Your task to perform on an android device: Open calendar and show me the third week of next month Image 0: 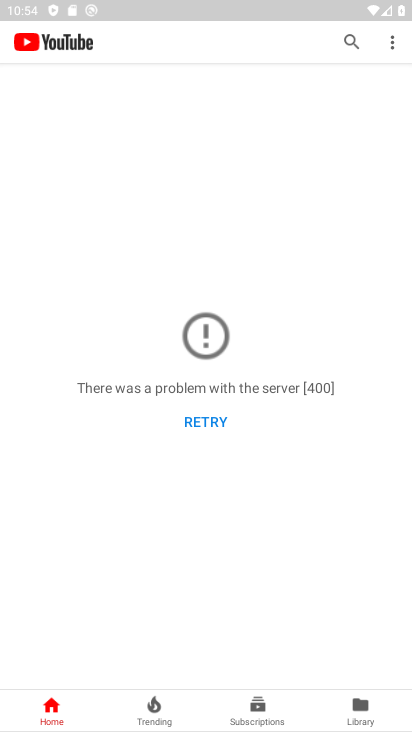
Step 0: press home button
Your task to perform on an android device: Open calendar and show me the third week of next month Image 1: 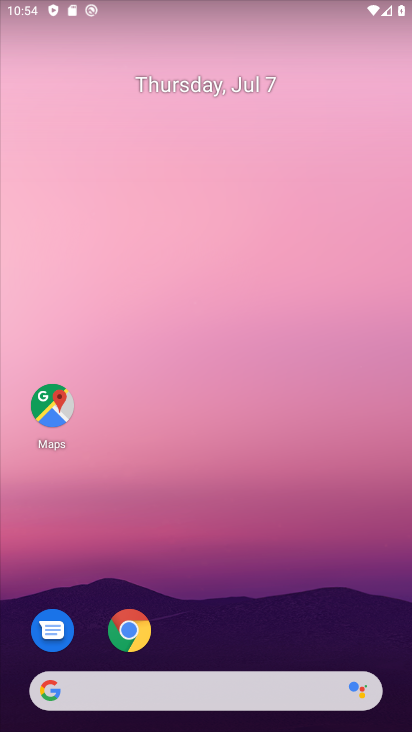
Step 1: drag from (395, 667) to (316, 68)
Your task to perform on an android device: Open calendar and show me the third week of next month Image 2: 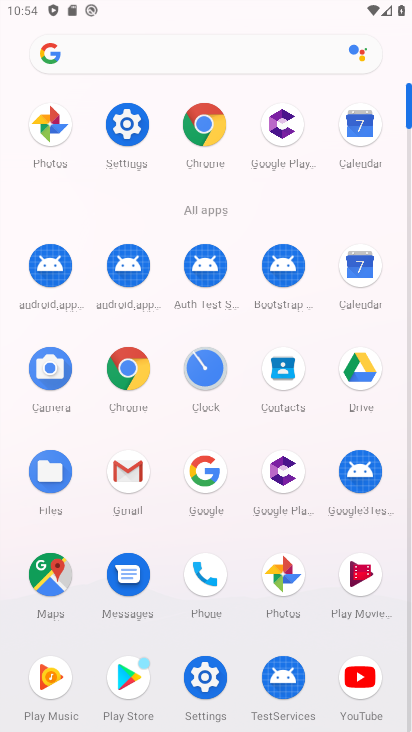
Step 2: click (360, 264)
Your task to perform on an android device: Open calendar and show me the third week of next month Image 3: 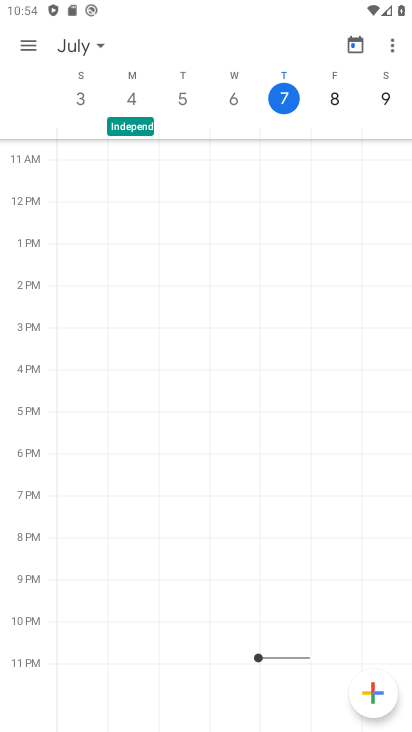
Step 3: click (93, 46)
Your task to perform on an android device: Open calendar and show me the third week of next month Image 4: 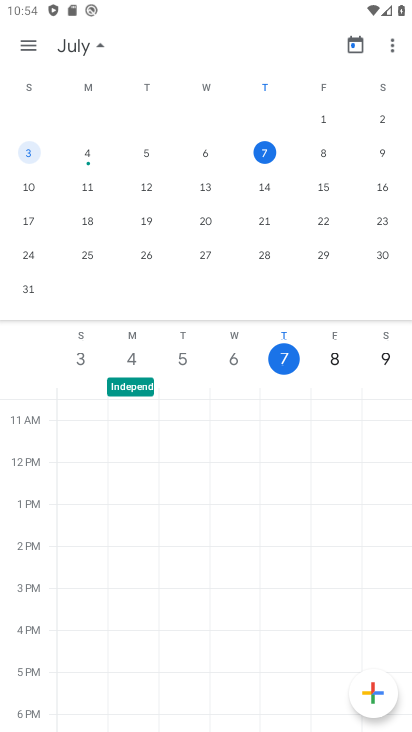
Step 4: drag from (369, 245) to (112, 245)
Your task to perform on an android device: Open calendar and show me the third week of next month Image 5: 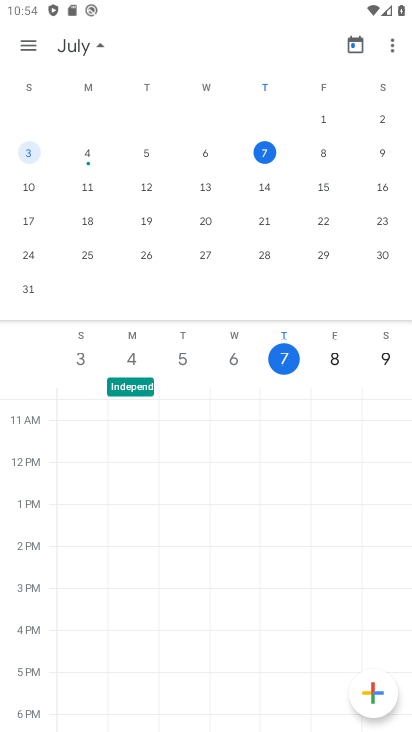
Step 5: drag from (393, 248) to (2, 193)
Your task to perform on an android device: Open calendar and show me the third week of next month Image 6: 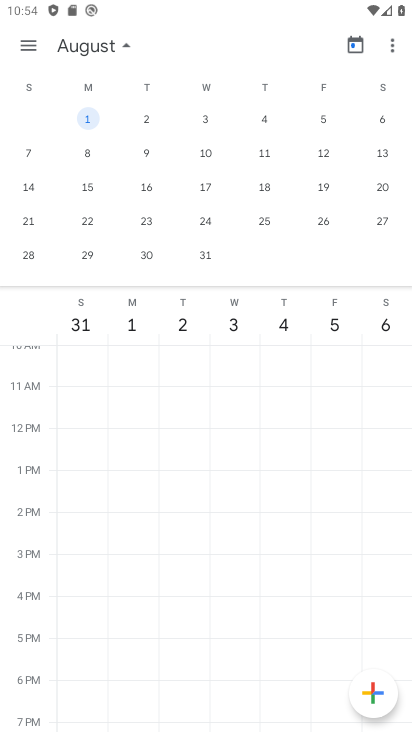
Step 6: click (20, 219)
Your task to perform on an android device: Open calendar and show me the third week of next month Image 7: 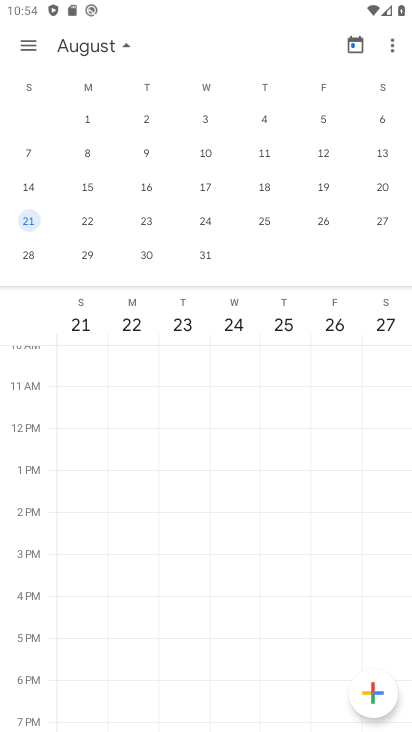
Step 7: task complete